Your task to perform on an android device: turn off improve location accuracy Image 0: 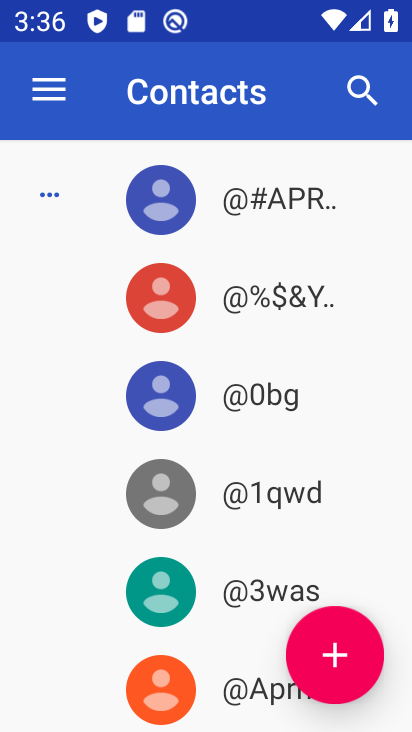
Step 0: press home button
Your task to perform on an android device: turn off improve location accuracy Image 1: 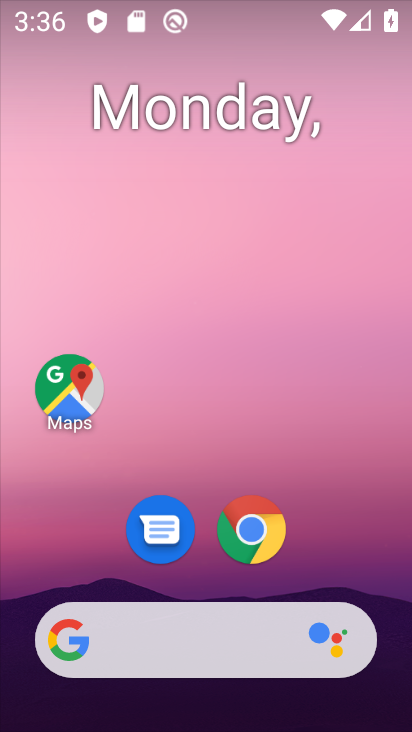
Step 1: drag from (211, 579) to (268, 26)
Your task to perform on an android device: turn off improve location accuracy Image 2: 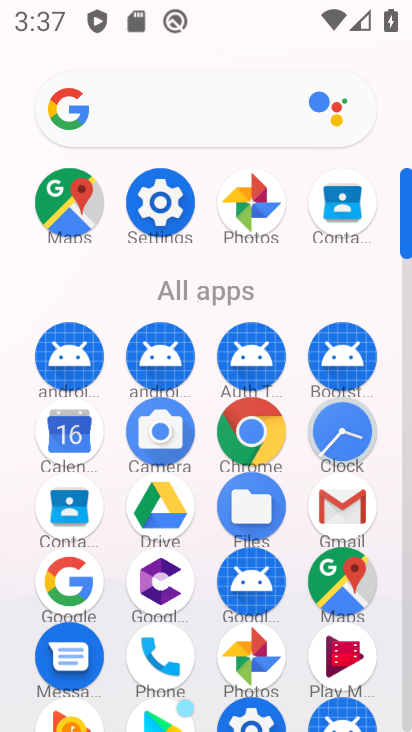
Step 2: click (170, 217)
Your task to perform on an android device: turn off improve location accuracy Image 3: 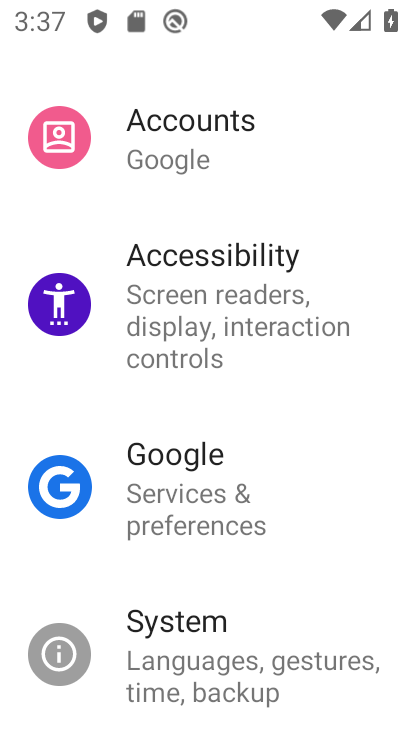
Step 3: drag from (224, 272) to (219, 581)
Your task to perform on an android device: turn off improve location accuracy Image 4: 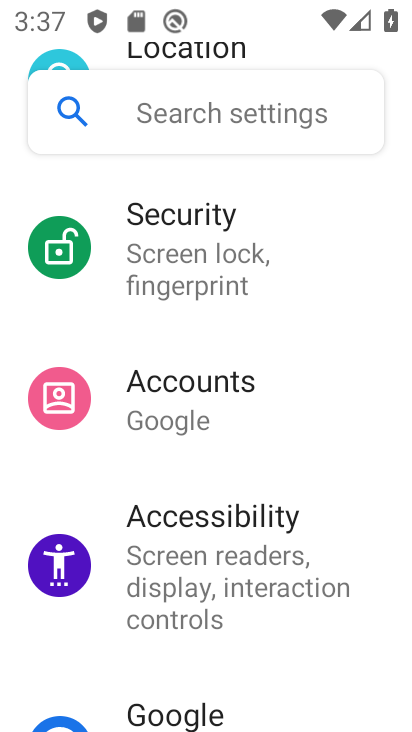
Step 4: drag from (220, 310) to (191, 586)
Your task to perform on an android device: turn off improve location accuracy Image 5: 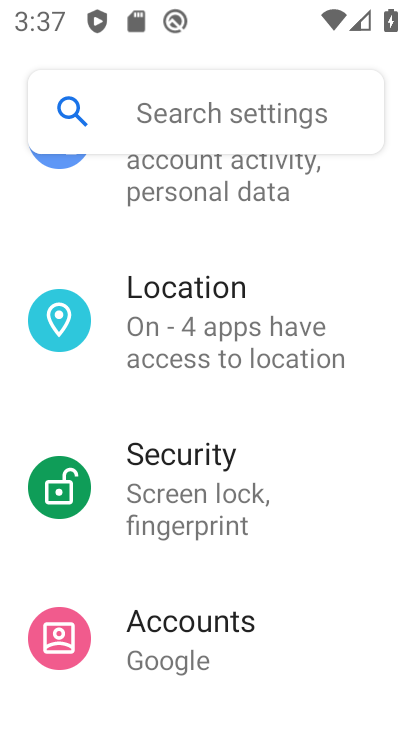
Step 5: click (189, 327)
Your task to perform on an android device: turn off improve location accuracy Image 6: 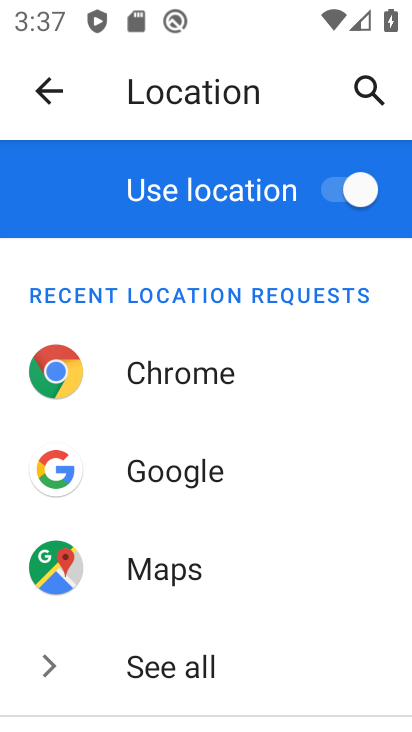
Step 6: drag from (191, 607) to (235, 399)
Your task to perform on an android device: turn off improve location accuracy Image 7: 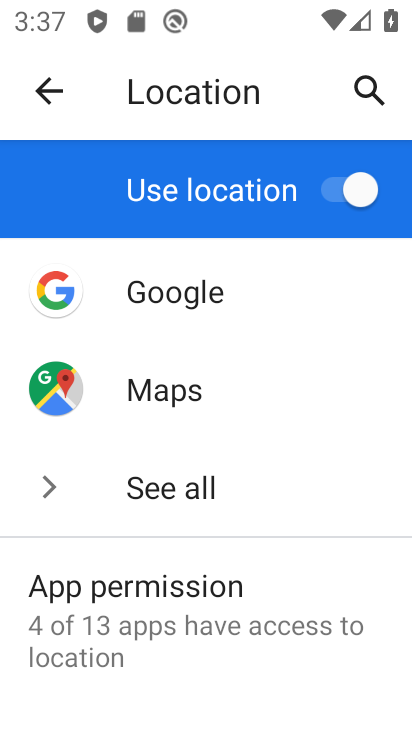
Step 7: drag from (208, 624) to (260, 326)
Your task to perform on an android device: turn off improve location accuracy Image 8: 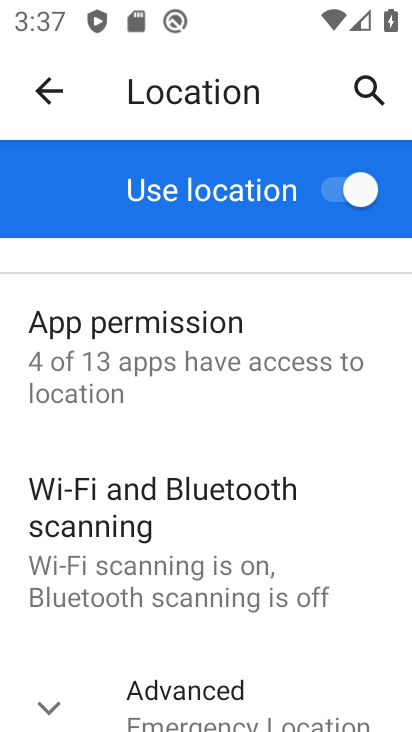
Step 8: drag from (159, 579) to (224, 344)
Your task to perform on an android device: turn off improve location accuracy Image 9: 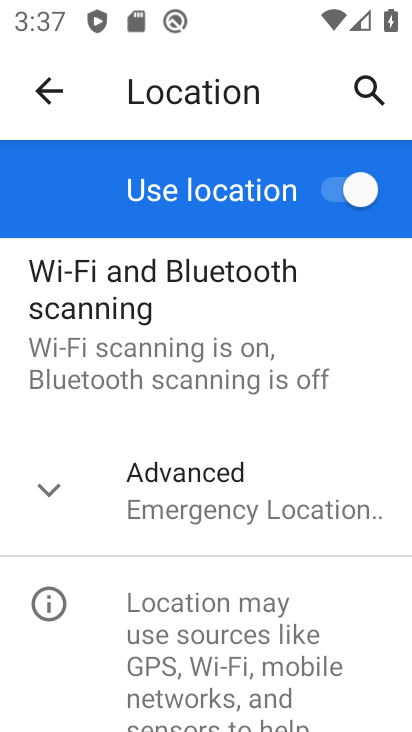
Step 9: click (54, 475)
Your task to perform on an android device: turn off improve location accuracy Image 10: 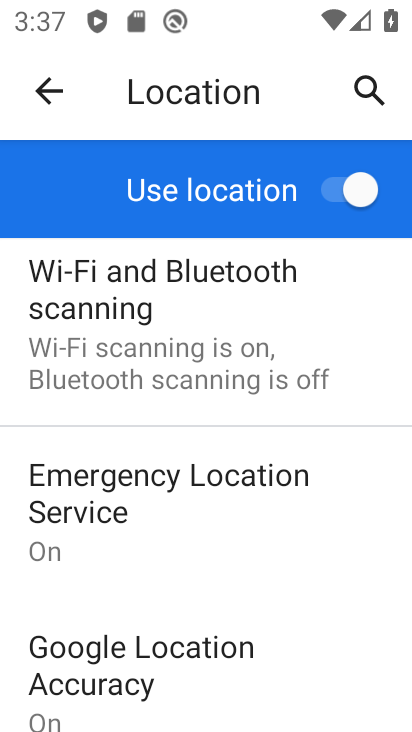
Step 10: click (172, 659)
Your task to perform on an android device: turn off improve location accuracy Image 11: 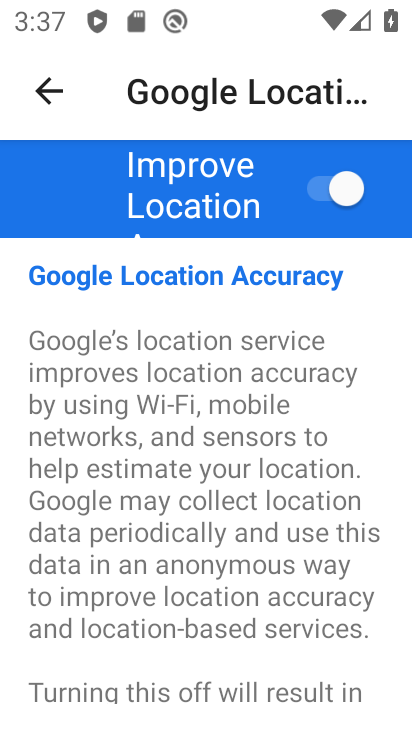
Step 11: click (306, 202)
Your task to perform on an android device: turn off improve location accuracy Image 12: 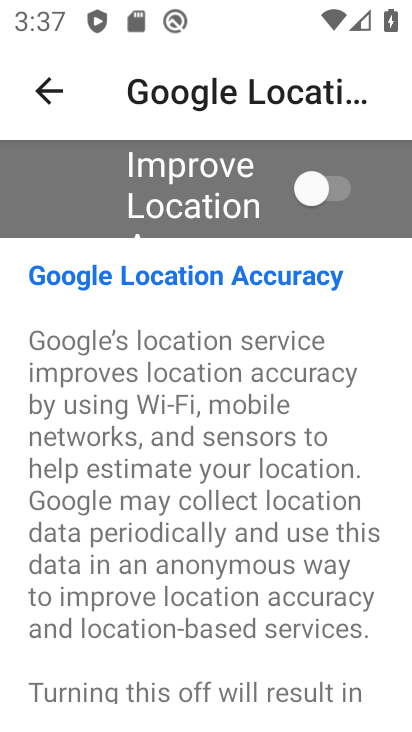
Step 12: task complete